Your task to perform on an android device: Is it going to rain this weekend? Image 0: 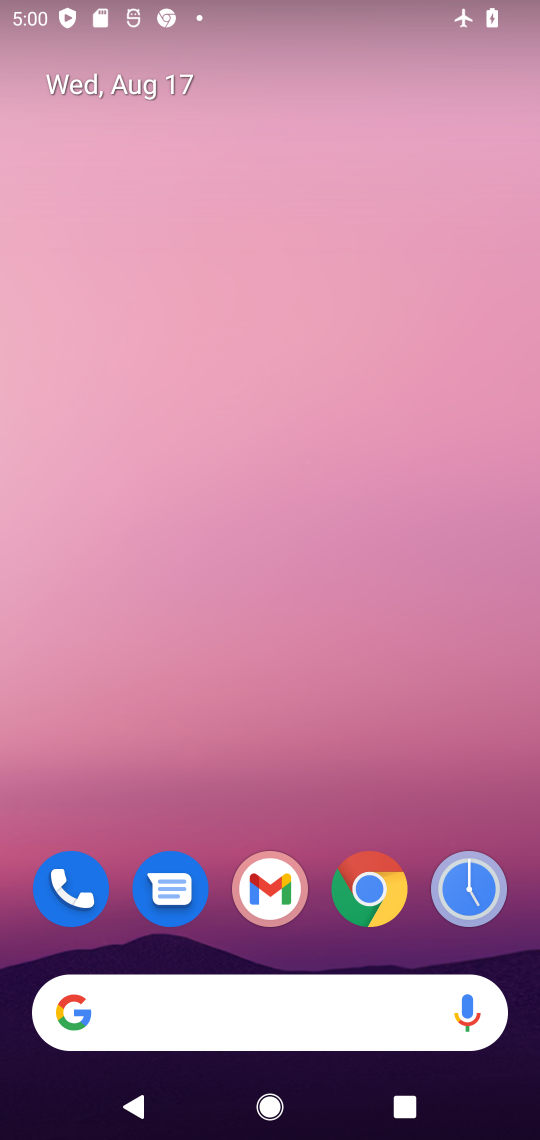
Step 0: drag from (301, 784) to (307, 18)
Your task to perform on an android device: Is it going to rain this weekend? Image 1: 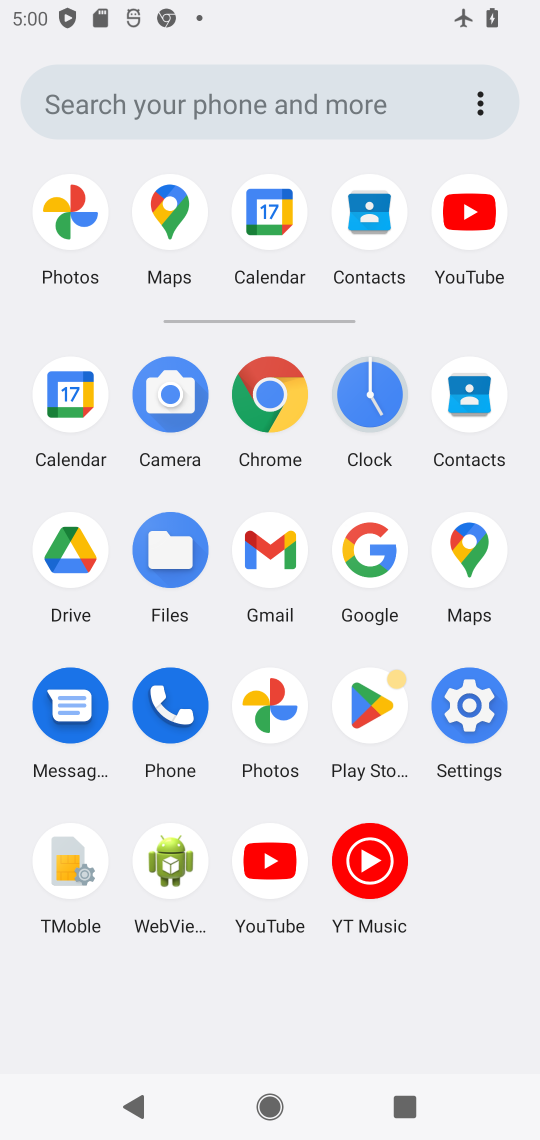
Step 1: click (370, 552)
Your task to perform on an android device: Is it going to rain this weekend? Image 2: 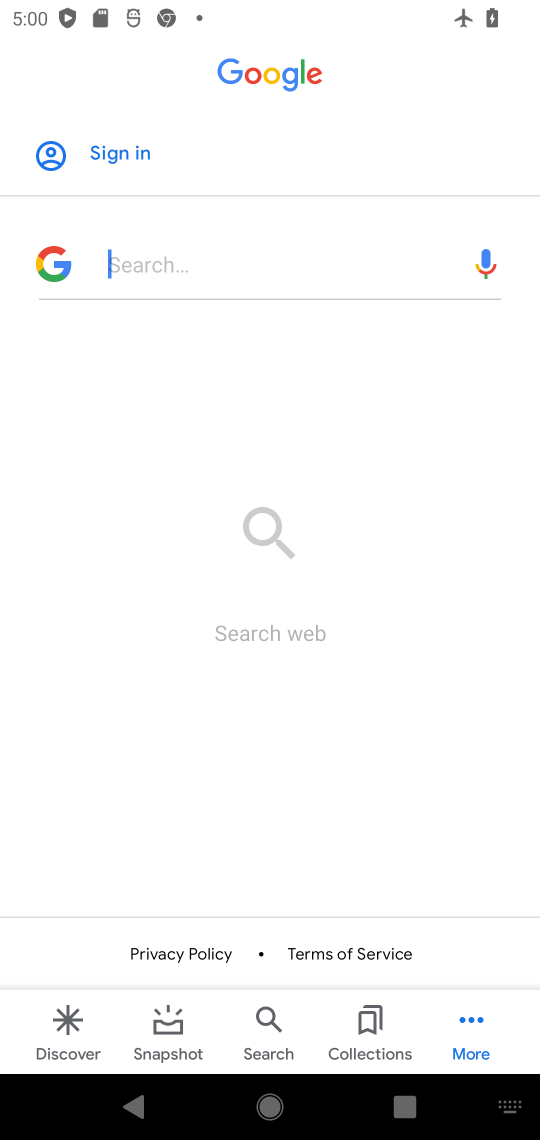
Step 2: type "weather"
Your task to perform on an android device: Is it going to rain this weekend? Image 3: 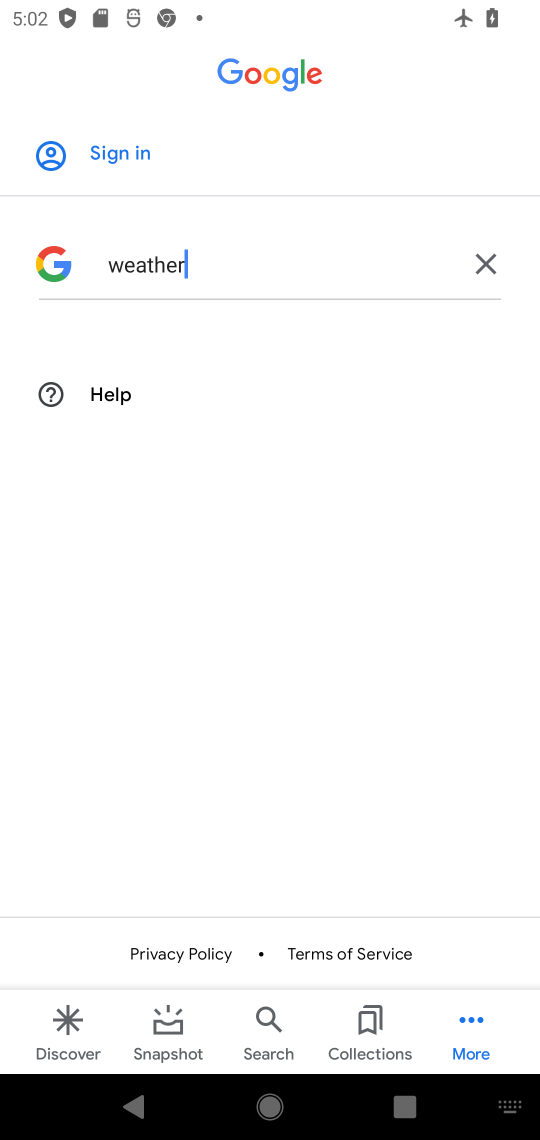
Step 3: task complete